Your task to perform on an android device: visit the assistant section in the google photos Image 0: 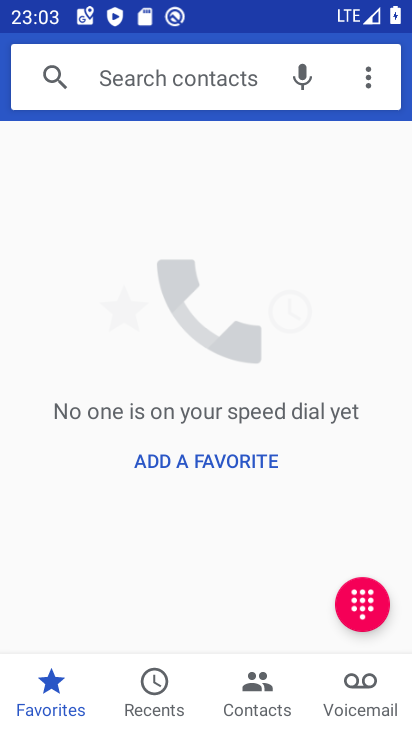
Step 0: press home button
Your task to perform on an android device: visit the assistant section in the google photos Image 1: 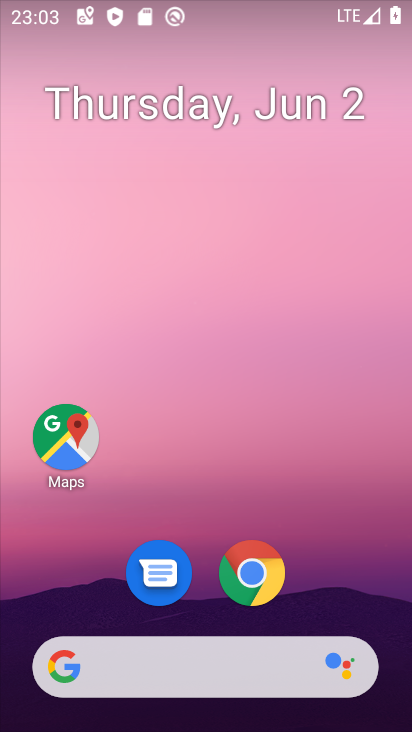
Step 1: drag from (384, 605) to (334, 362)
Your task to perform on an android device: visit the assistant section in the google photos Image 2: 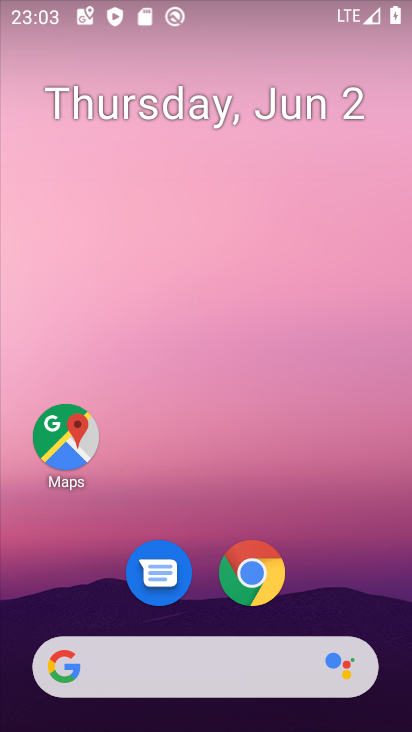
Step 2: drag from (392, 694) to (360, 451)
Your task to perform on an android device: visit the assistant section in the google photos Image 3: 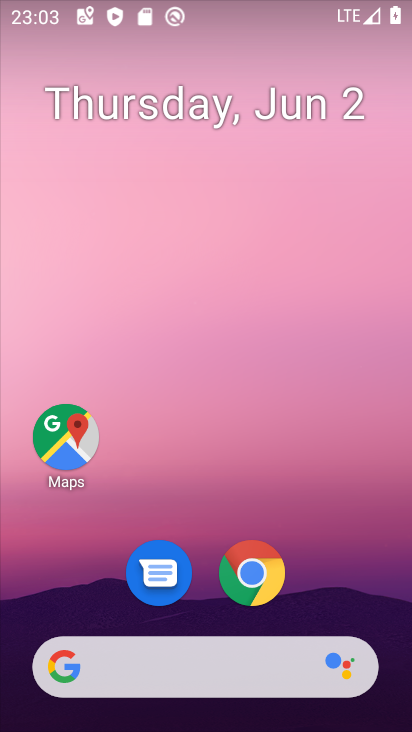
Step 3: drag from (399, 597) to (408, 162)
Your task to perform on an android device: visit the assistant section in the google photos Image 4: 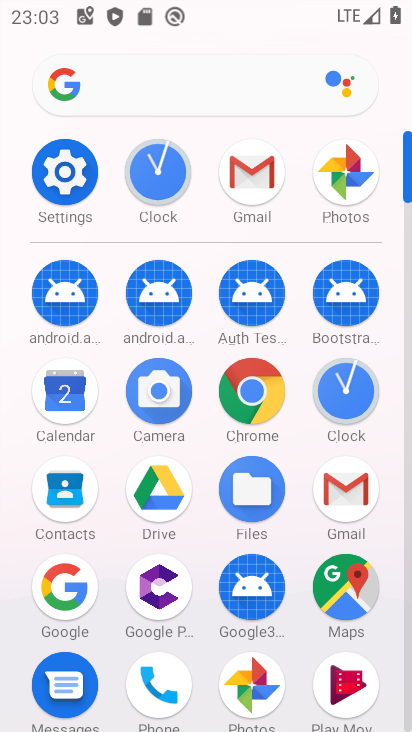
Step 4: click (347, 167)
Your task to perform on an android device: visit the assistant section in the google photos Image 5: 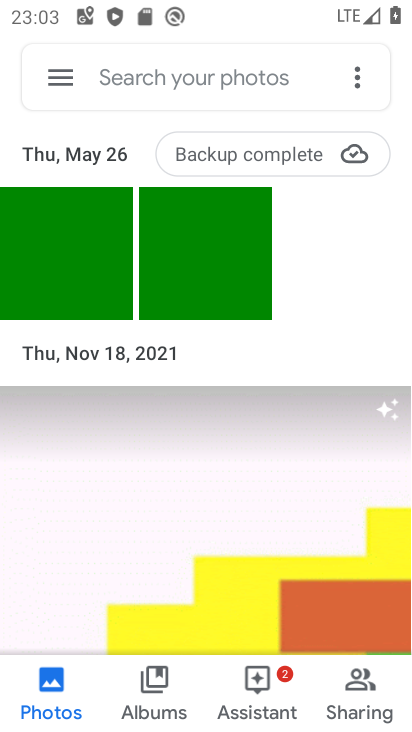
Step 5: click (259, 710)
Your task to perform on an android device: visit the assistant section in the google photos Image 6: 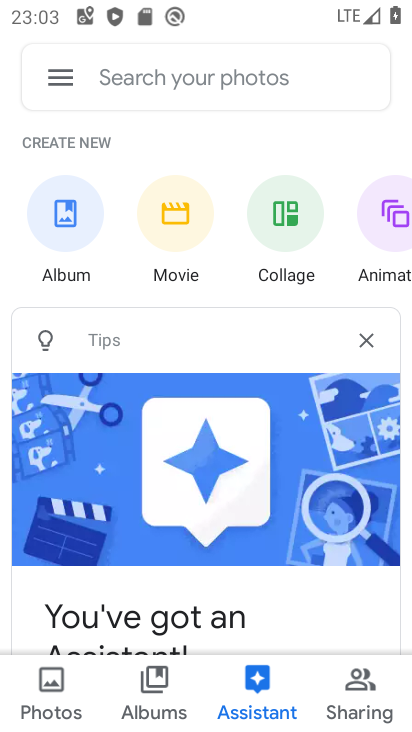
Step 6: task complete